Your task to perform on an android device: Open Youtube and go to "Your channel" Image 0: 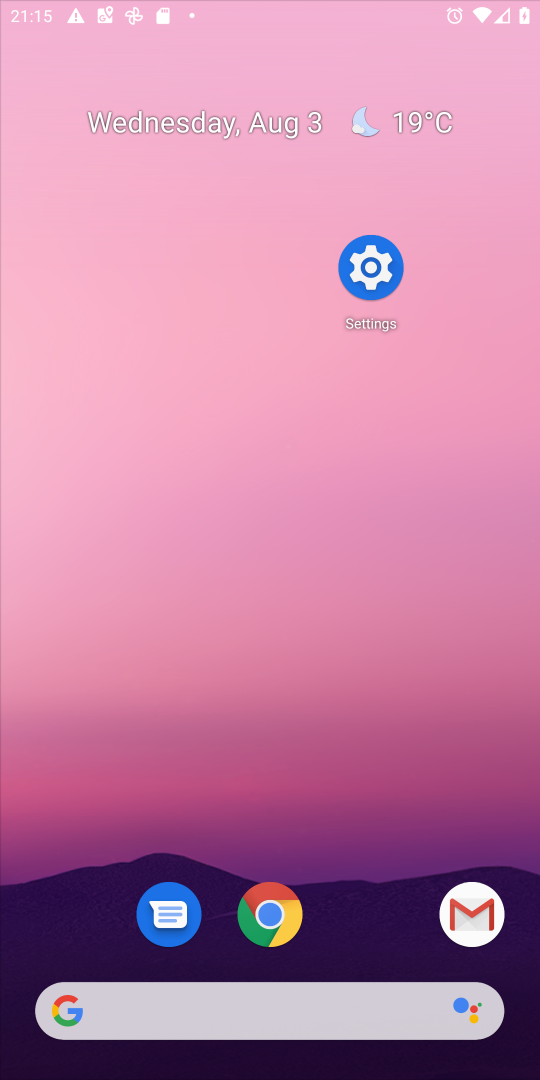
Step 0: press home button
Your task to perform on an android device: Open Youtube and go to "Your channel" Image 1: 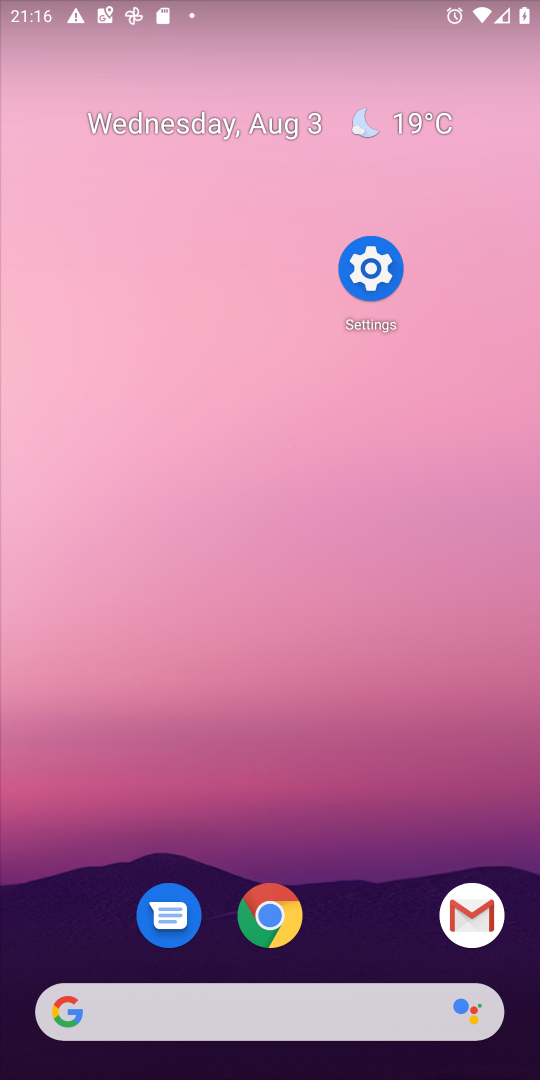
Step 1: click (460, 931)
Your task to perform on an android device: Open Youtube and go to "Your channel" Image 2: 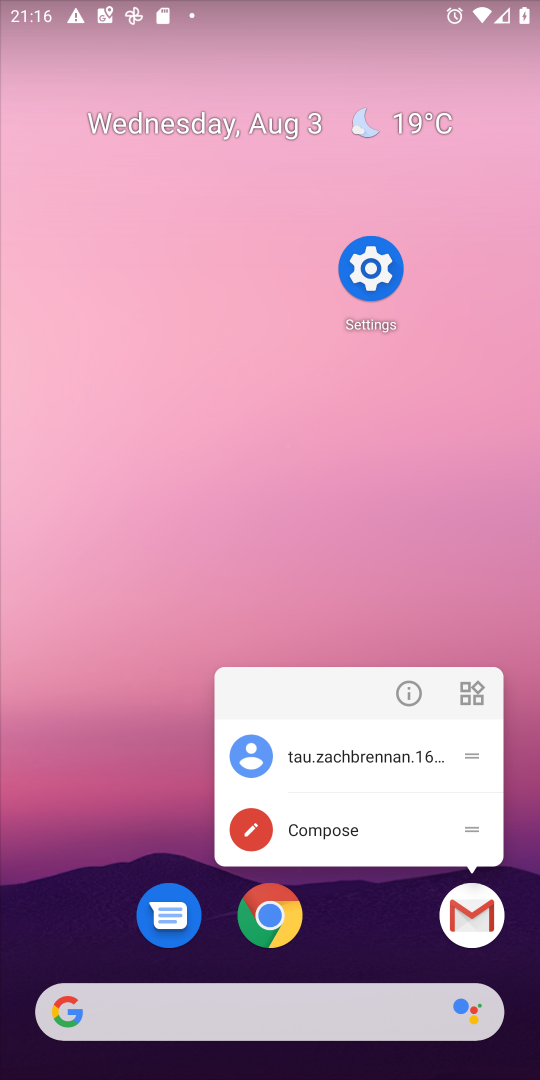
Step 2: click (457, 915)
Your task to perform on an android device: Open Youtube and go to "Your channel" Image 3: 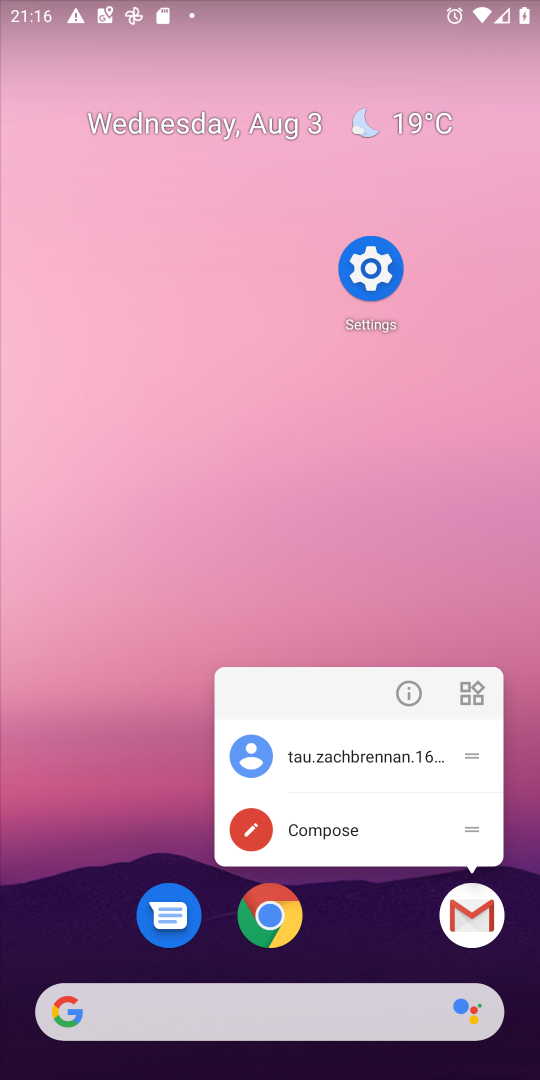
Step 3: click (292, 1072)
Your task to perform on an android device: Open Youtube and go to "Your channel" Image 4: 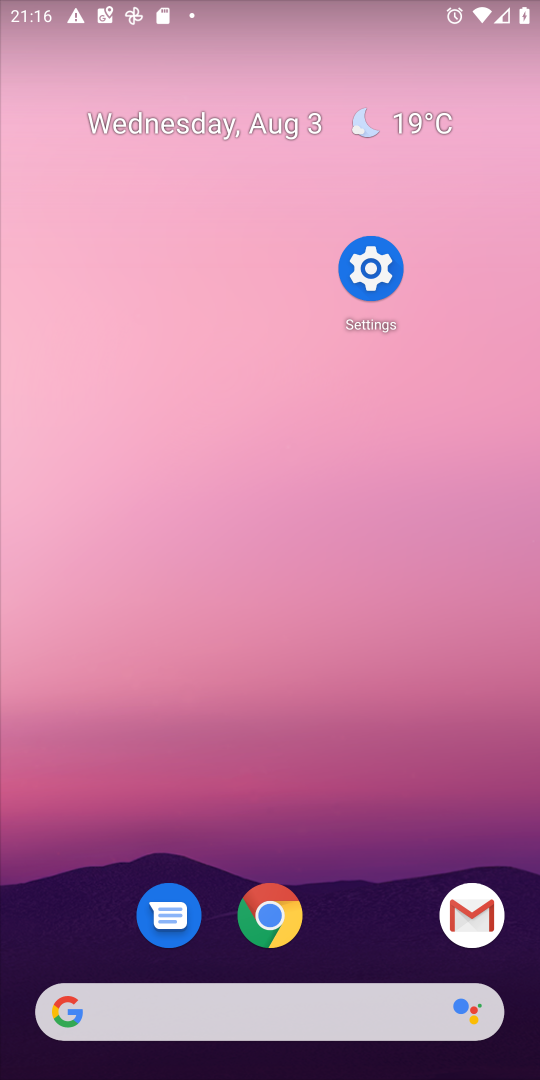
Step 4: drag from (287, 1042) to (171, 191)
Your task to perform on an android device: Open Youtube and go to "Your channel" Image 5: 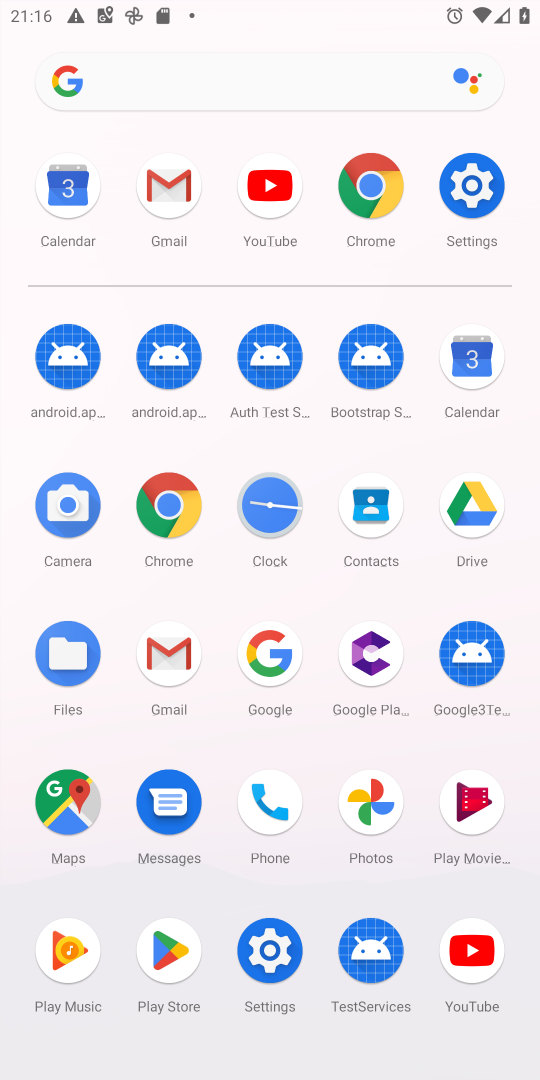
Step 5: click (467, 941)
Your task to perform on an android device: Open Youtube and go to "Your channel" Image 6: 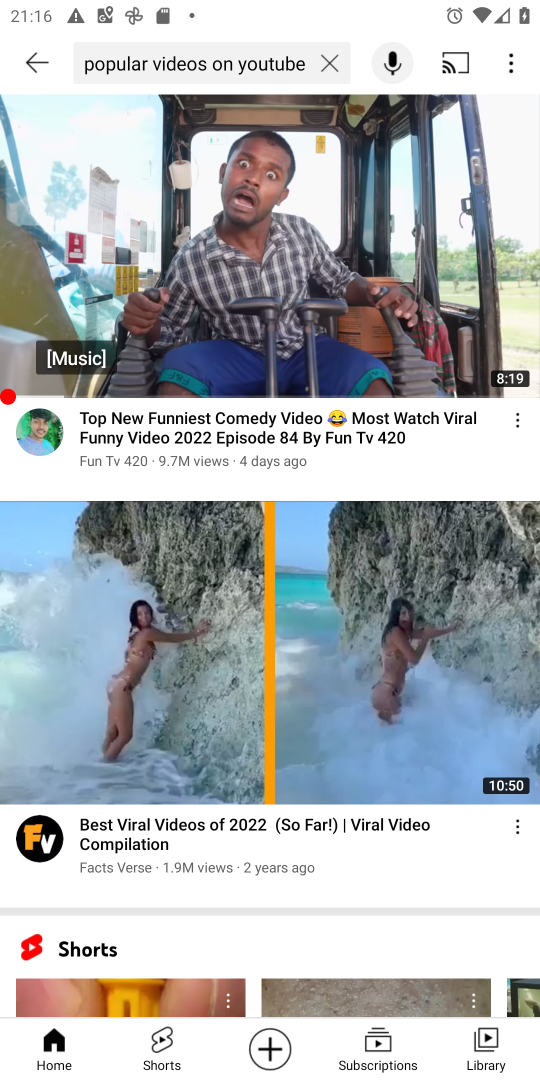
Step 6: click (34, 65)
Your task to perform on an android device: Open Youtube and go to "Your channel" Image 7: 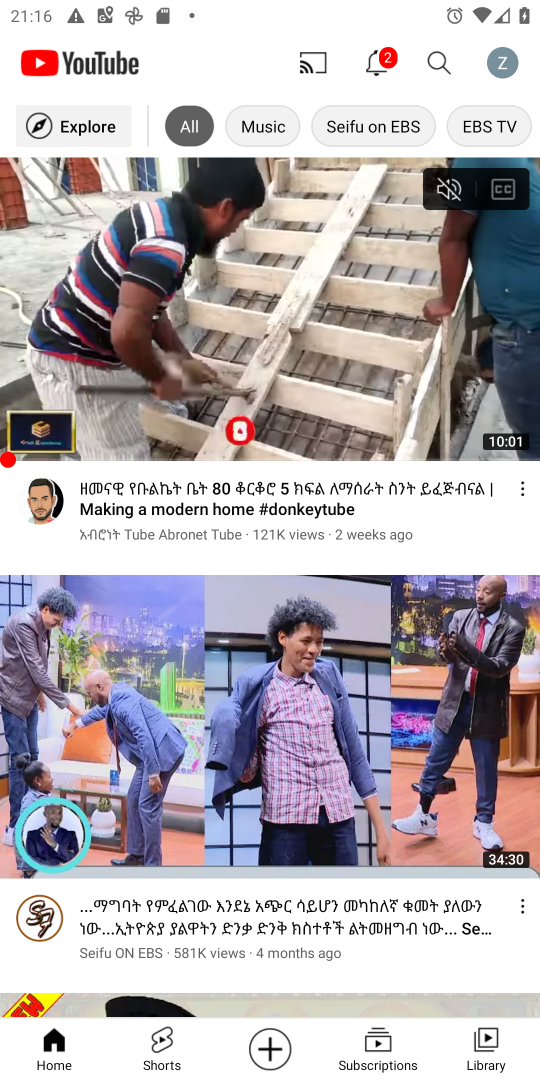
Step 7: click (505, 56)
Your task to perform on an android device: Open Youtube and go to "Your channel" Image 8: 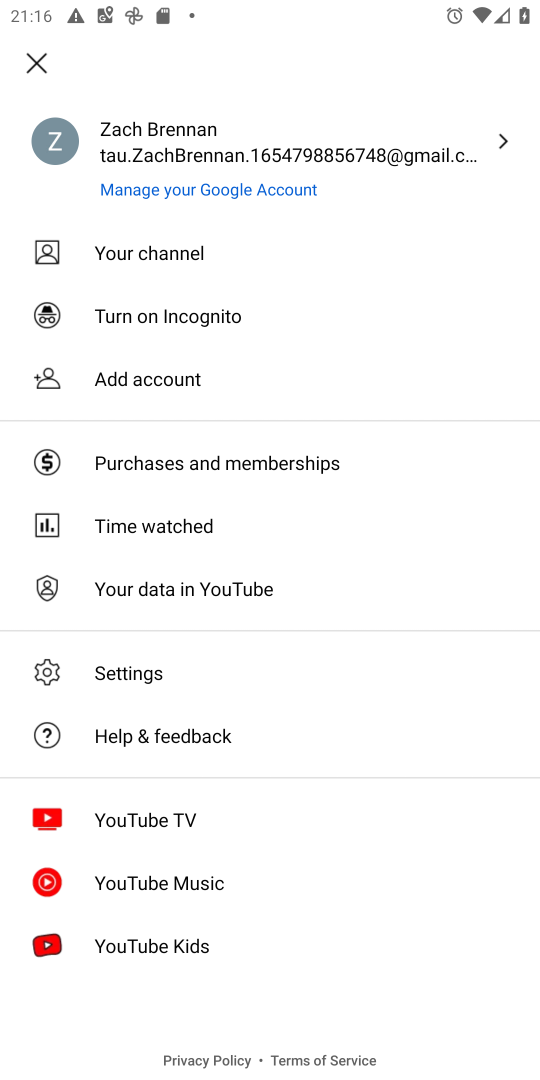
Step 8: click (139, 236)
Your task to perform on an android device: Open Youtube and go to "Your channel" Image 9: 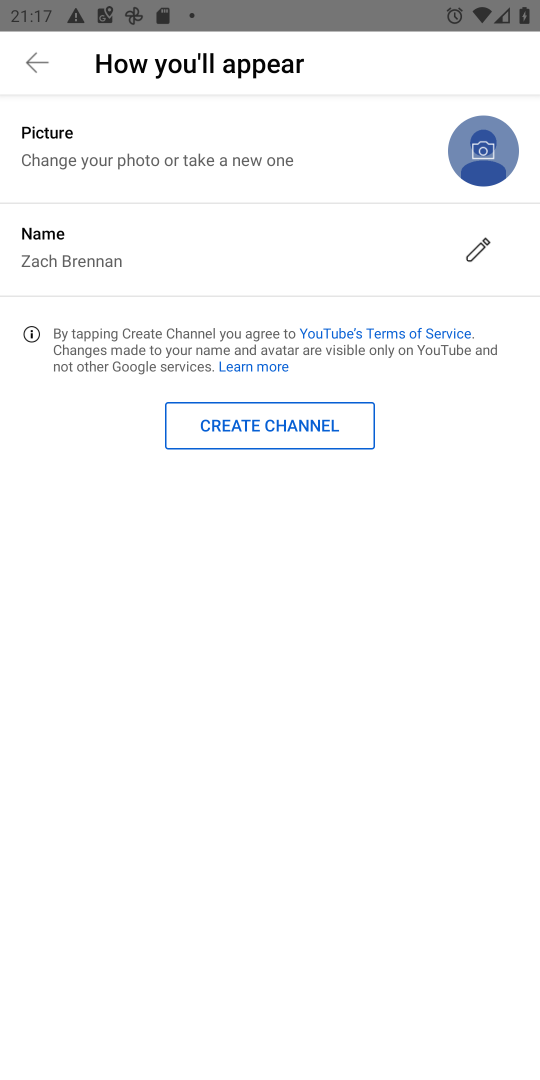
Step 9: task complete